Your task to perform on an android device: make emails show in primary in the gmail app Image 0: 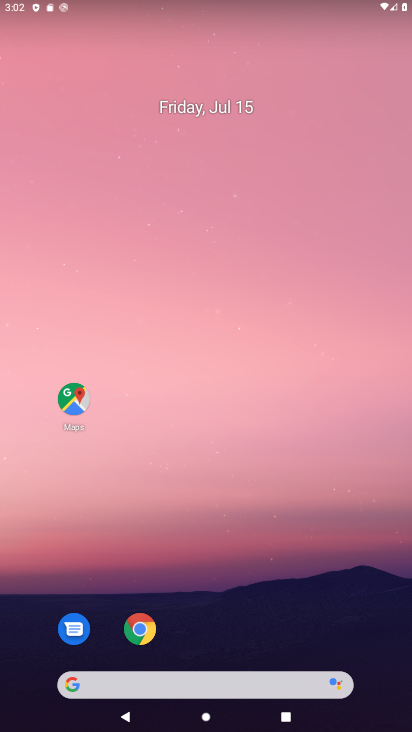
Step 0: drag from (360, 599) to (333, 258)
Your task to perform on an android device: make emails show in primary in the gmail app Image 1: 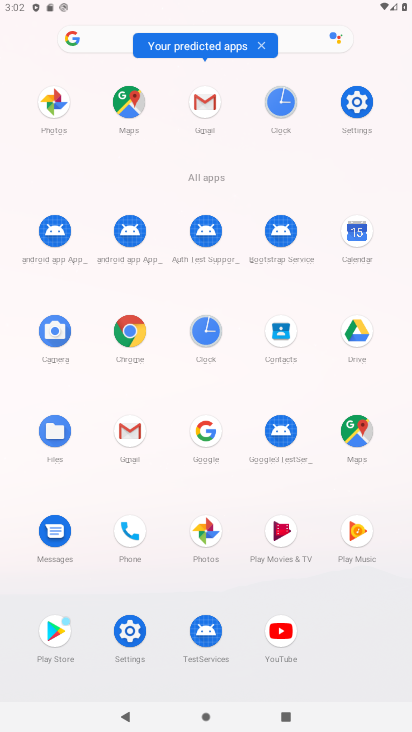
Step 1: click (129, 483)
Your task to perform on an android device: make emails show in primary in the gmail app Image 2: 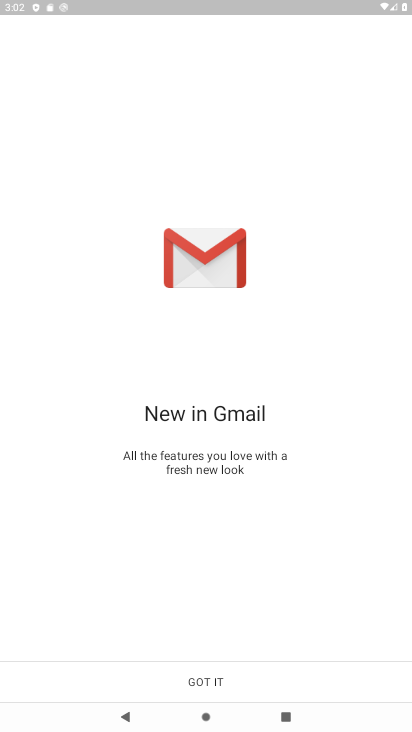
Step 2: click (208, 677)
Your task to perform on an android device: make emails show in primary in the gmail app Image 3: 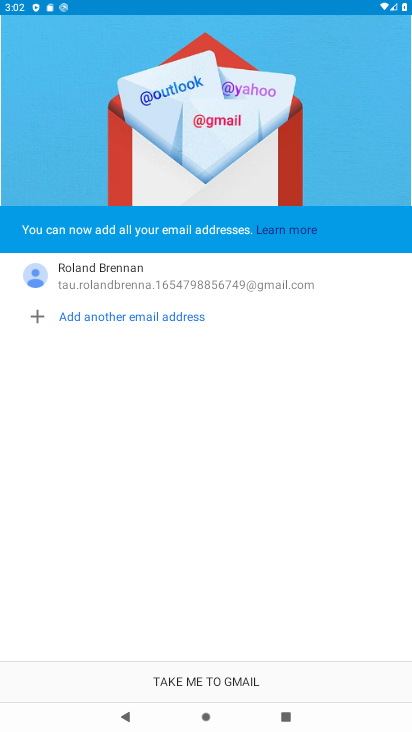
Step 3: click (208, 678)
Your task to perform on an android device: make emails show in primary in the gmail app Image 4: 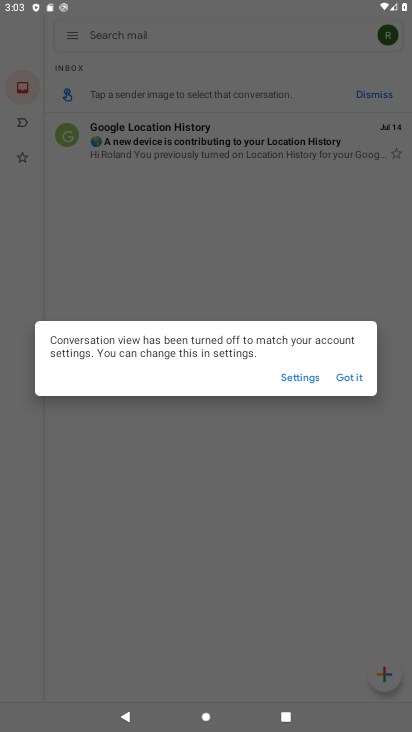
Step 4: press home button
Your task to perform on an android device: make emails show in primary in the gmail app Image 5: 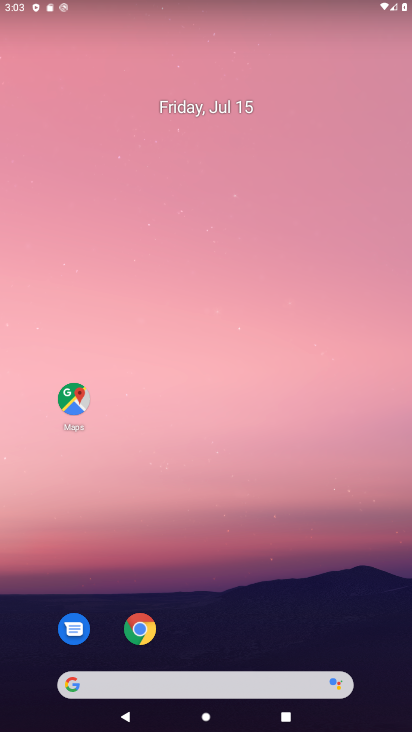
Step 5: drag from (392, 669) to (357, 228)
Your task to perform on an android device: make emails show in primary in the gmail app Image 6: 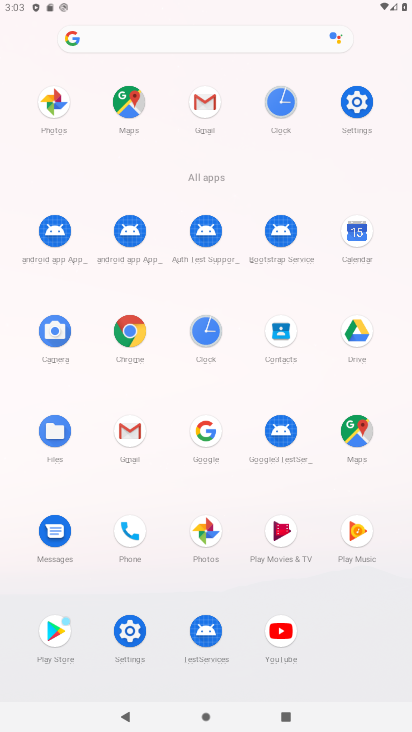
Step 6: click (132, 429)
Your task to perform on an android device: make emails show in primary in the gmail app Image 7: 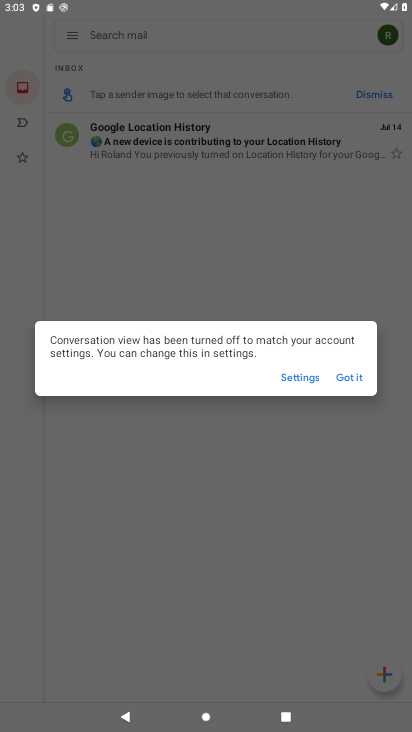
Step 7: click (347, 373)
Your task to perform on an android device: make emails show in primary in the gmail app Image 8: 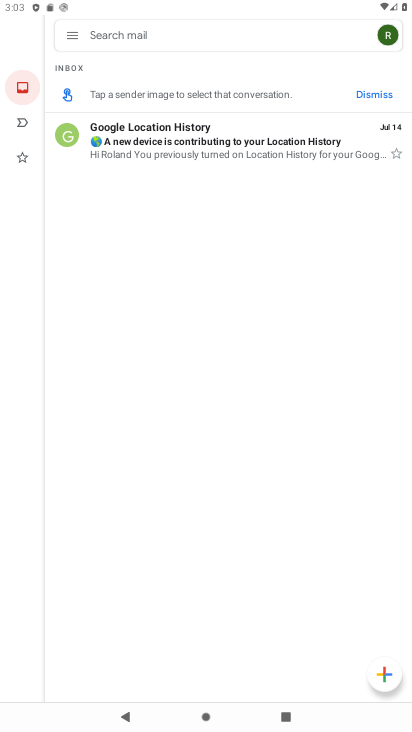
Step 8: click (65, 31)
Your task to perform on an android device: make emails show in primary in the gmail app Image 9: 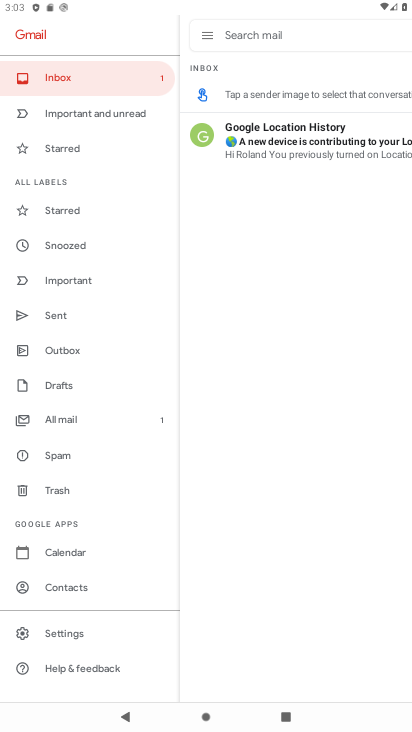
Step 9: click (73, 631)
Your task to perform on an android device: make emails show in primary in the gmail app Image 10: 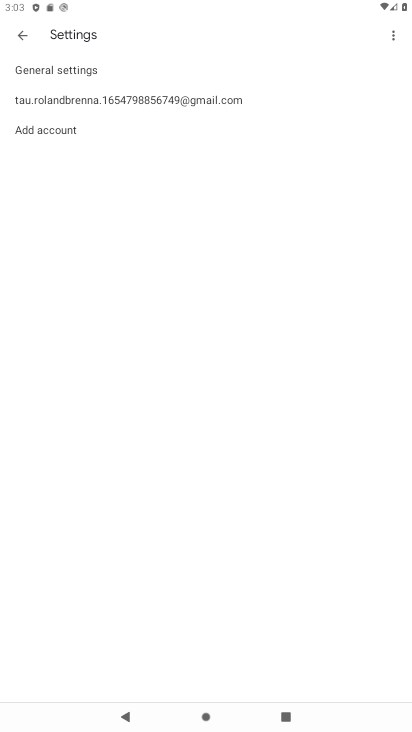
Step 10: click (42, 97)
Your task to perform on an android device: make emails show in primary in the gmail app Image 11: 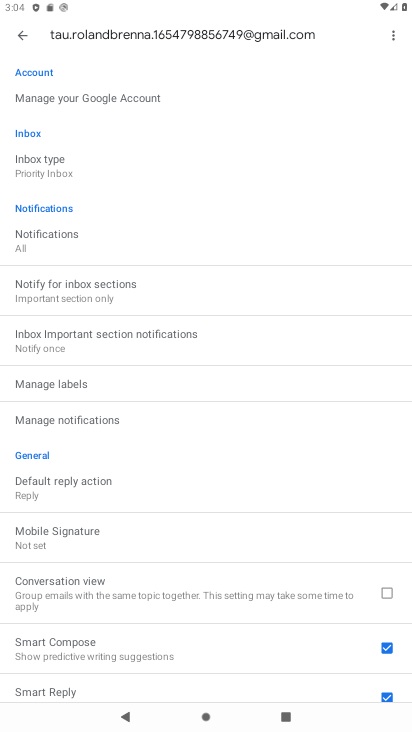
Step 11: click (39, 182)
Your task to perform on an android device: make emails show in primary in the gmail app Image 12: 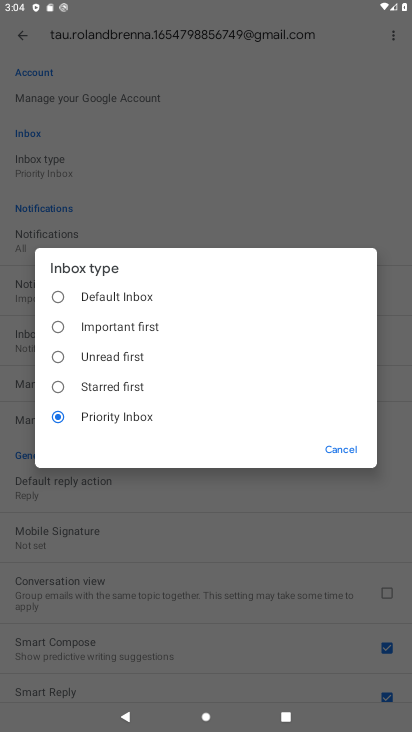
Step 12: click (52, 297)
Your task to perform on an android device: make emails show in primary in the gmail app Image 13: 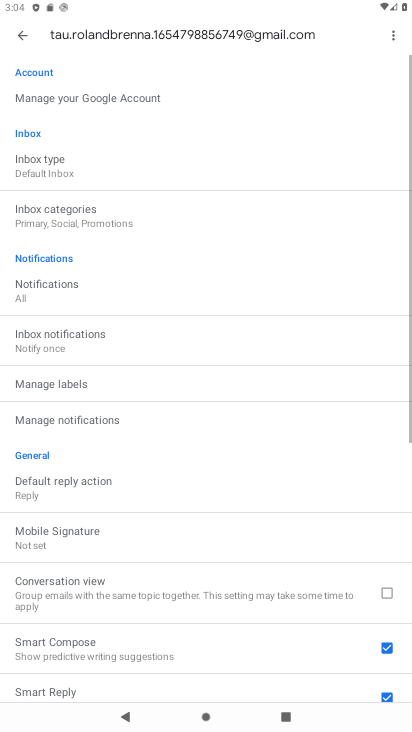
Step 13: click (58, 219)
Your task to perform on an android device: make emails show in primary in the gmail app Image 14: 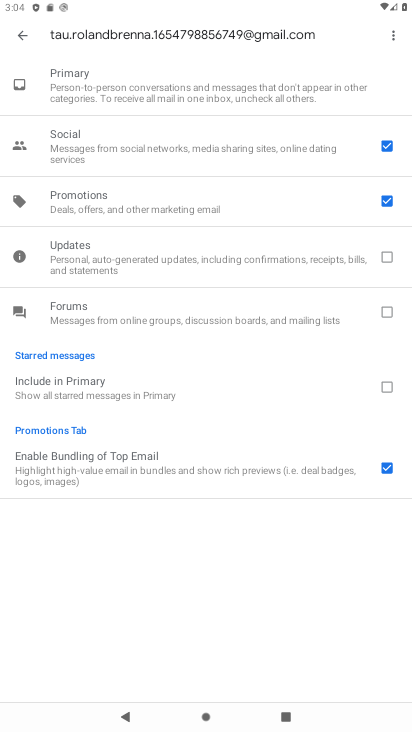
Step 14: click (380, 194)
Your task to perform on an android device: make emails show in primary in the gmail app Image 15: 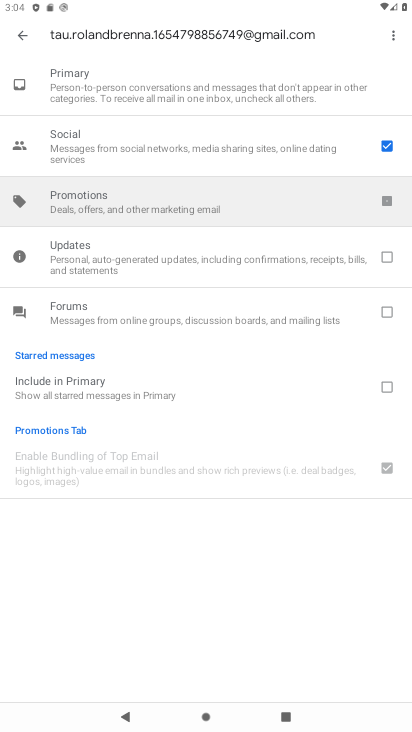
Step 15: click (386, 142)
Your task to perform on an android device: make emails show in primary in the gmail app Image 16: 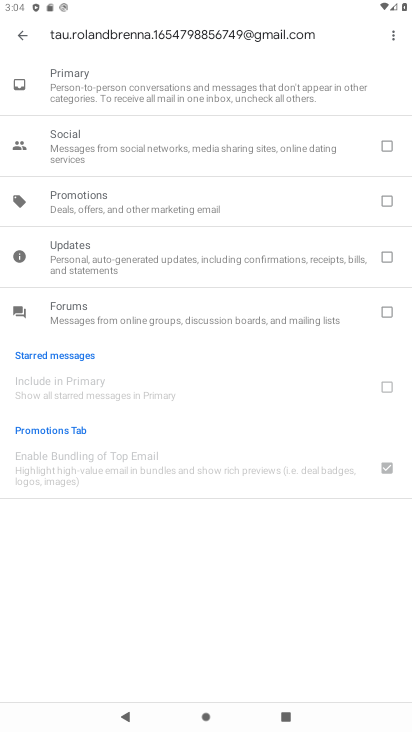
Step 16: task complete